Your task to perform on an android device: Open my contact list Image 0: 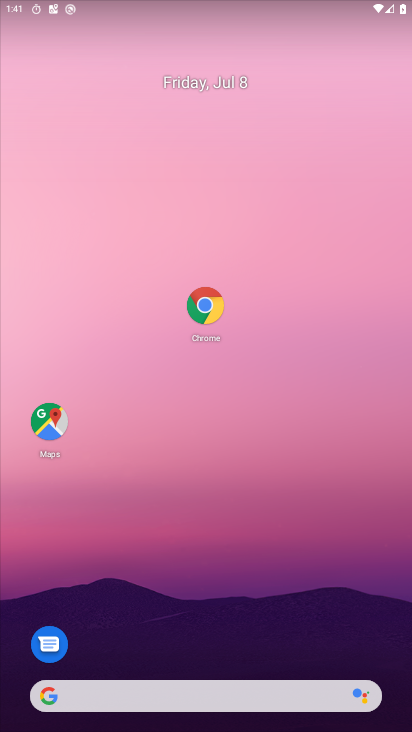
Step 0: drag from (203, 603) to (208, 361)
Your task to perform on an android device: Open my contact list Image 1: 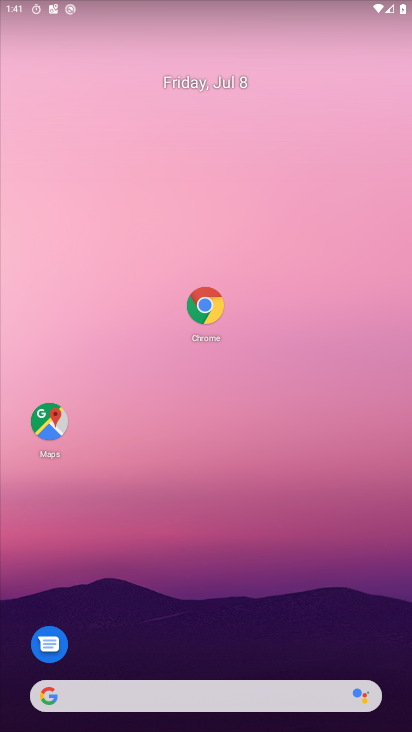
Step 1: drag from (152, 601) to (172, 312)
Your task to perform on an android device: Open my contact list Image 2: 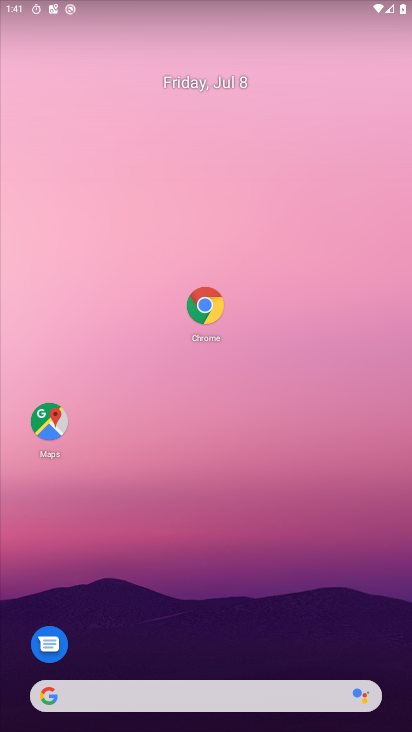
Step 2: drag from (147, 649) to (200, 259)
Your task to perform on an android device: Open my contact list Image 3: 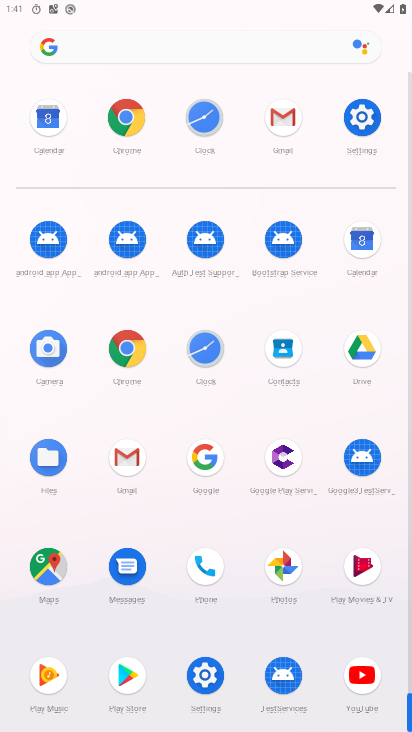
Step 3: click (279, 337)
Your task to perform on an android device: Open my contact list Image 4: 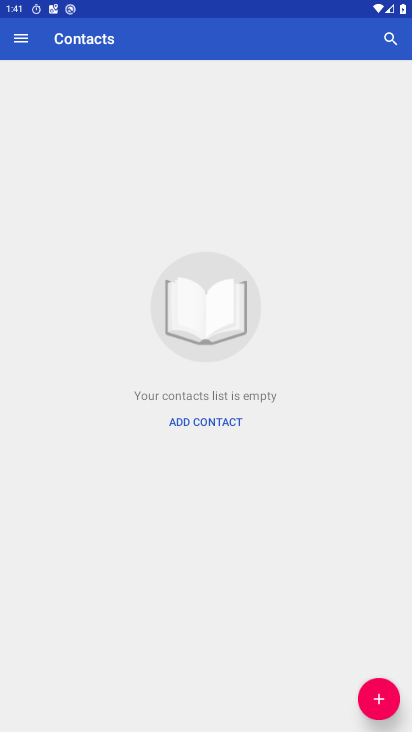
Step 4: task complete